Your task to perform on an android device: turn off translation in the chrome app Image 0: 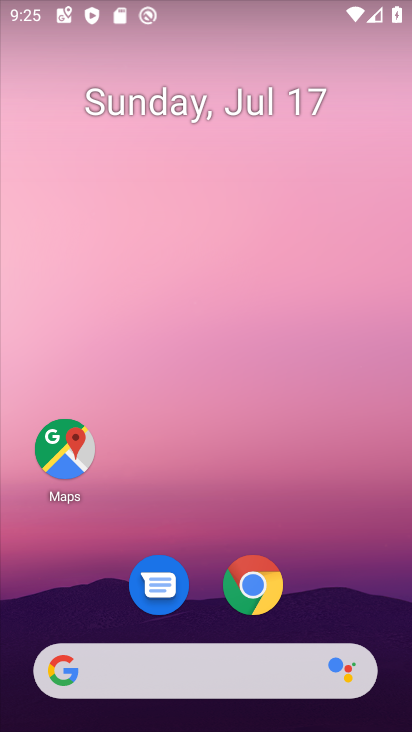
Step 0: click (254, 586)
Your task to perform on an android device: turn off translation in the chrome app Image 1: 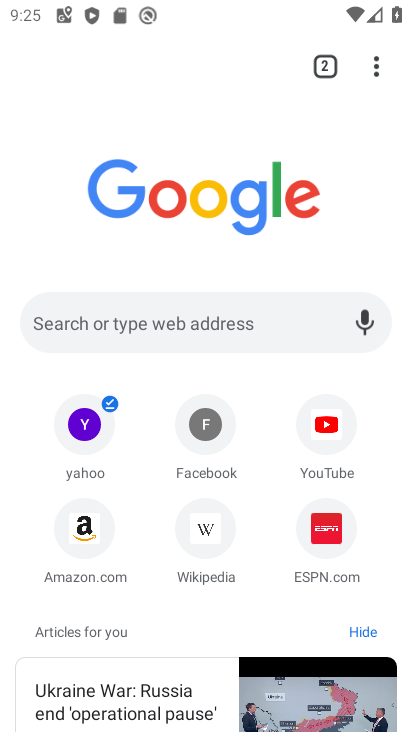
Step 1: click (376, 64)
Your task to perform on an android device: turn off translation in the chrome app Image 2: 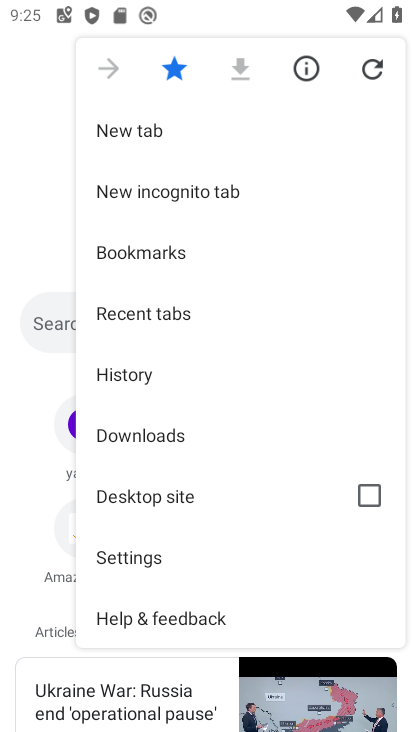
Step 2: click (167, 553)
Your task to perform on an android device: turn off translation in the chrome app Image 3: 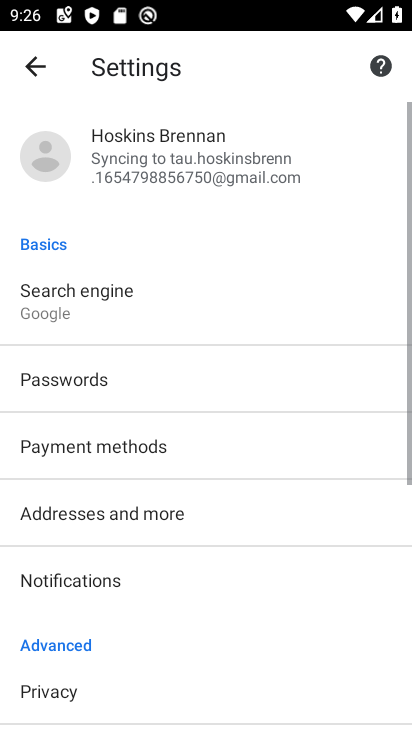
Step 3: drag from (235, 569) to (254, 191)
Your task to perform on an android device: turn off translation in the chrome app Image 4: 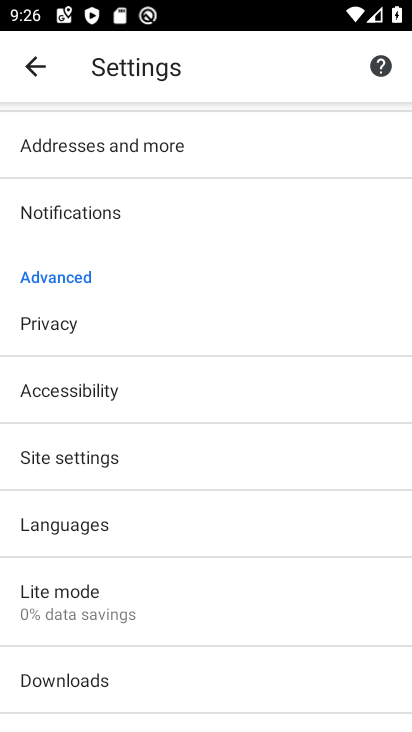
Step 4: click (190, 525)
Your task to perform on an android device: turn off translation in the chrome app Image 5: 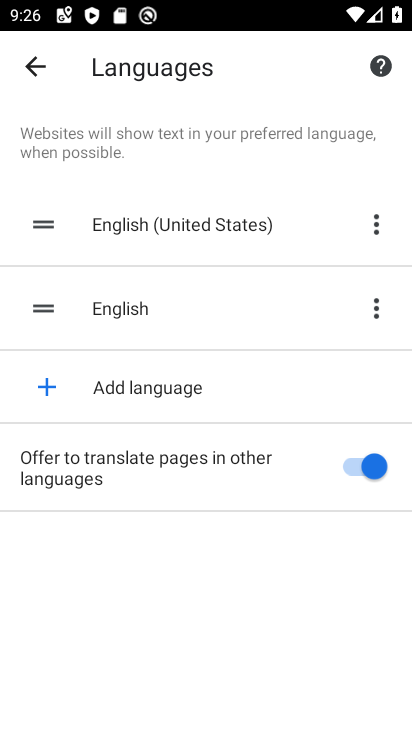
Step 5: click (361, 458)
Your task to perform on an android device: turn off translation in the chrome app Image 6: 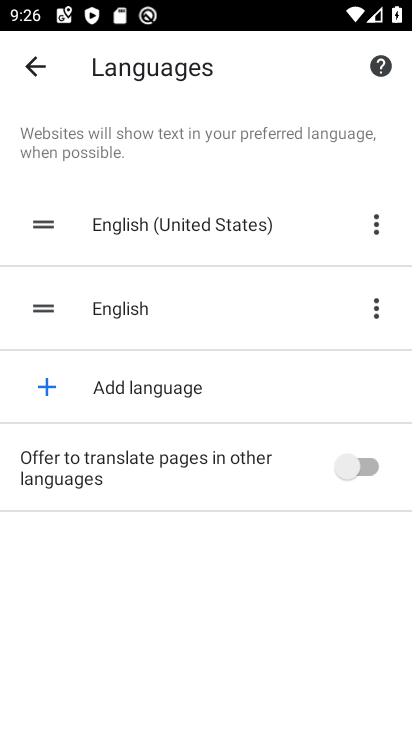
Step 6: task complete